Your task to perform on an android device: change notification settings in the gmail app Image 0: 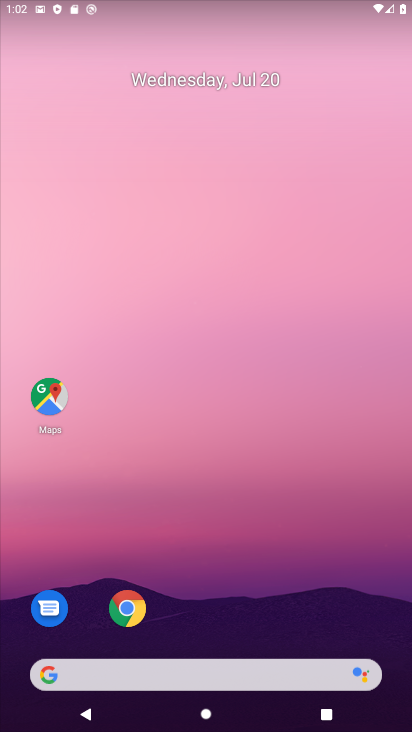
Step 0: drag from (219, 607) to (305, 6)
Your task to perform on an android device: change notification settings in the gmail app Image 1: 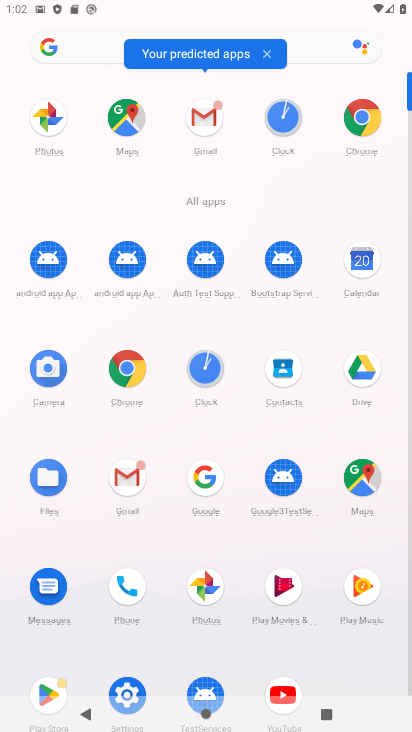
Step 1: click (211, 115)
Your task to perform on an android device: change notification settings in the gmail app Image 2: 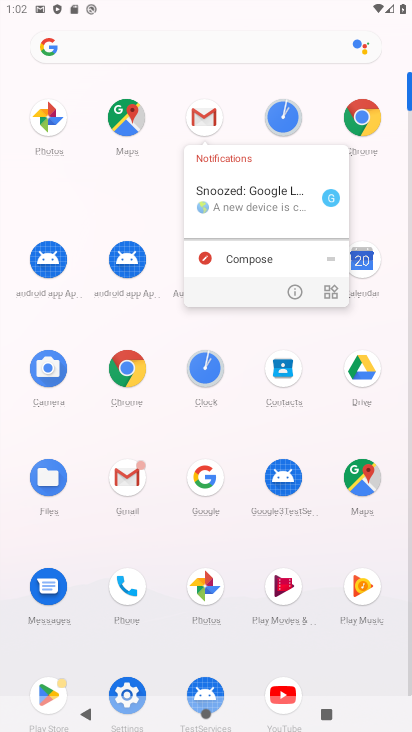
Step 2: click (295, 291)
Your task to perform on an android device: change notification settings in the gmail app Image 3: 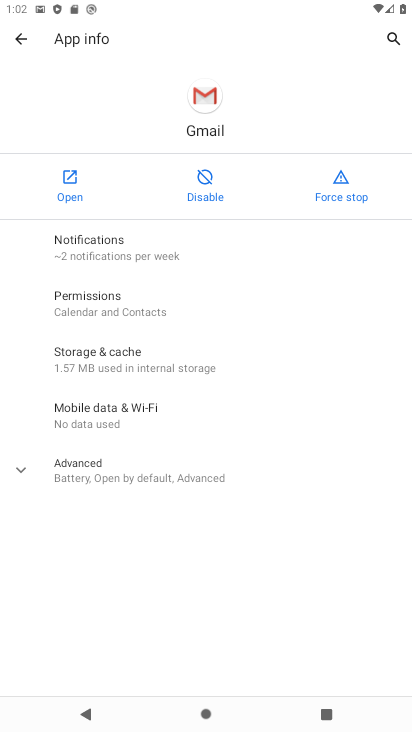
Step 3: click (130, 252)
Your task to perform on an android device: change notification settings in the gmail app Image 4: 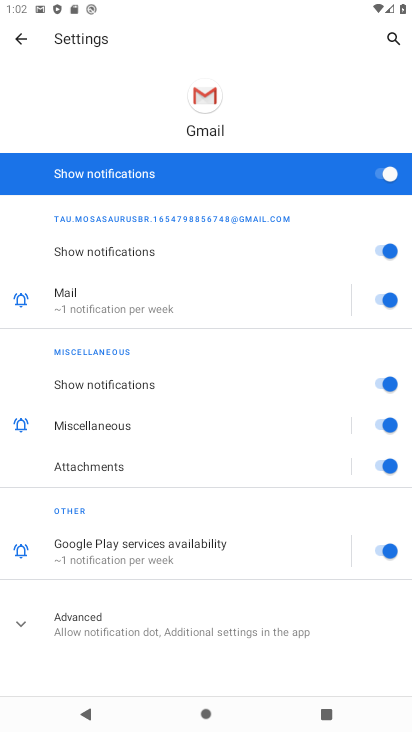
Step 4: click (399, 251)
Your task to perform on an android device: change notification settings in the gmail app Image 5: 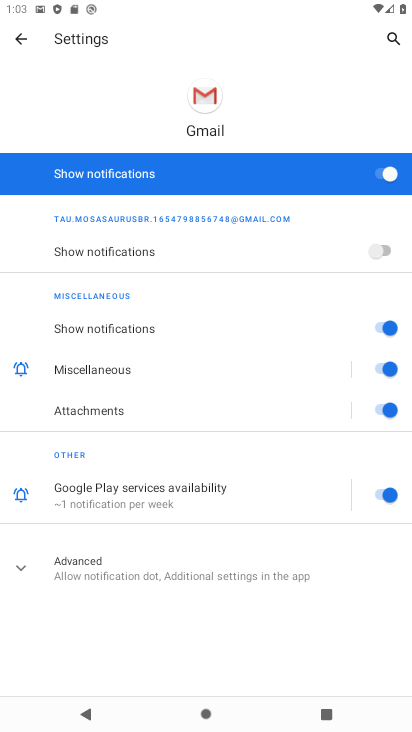
Step 5: task complete